Your task to perform on an android device: visit the assistant section in the google photos Image 0: 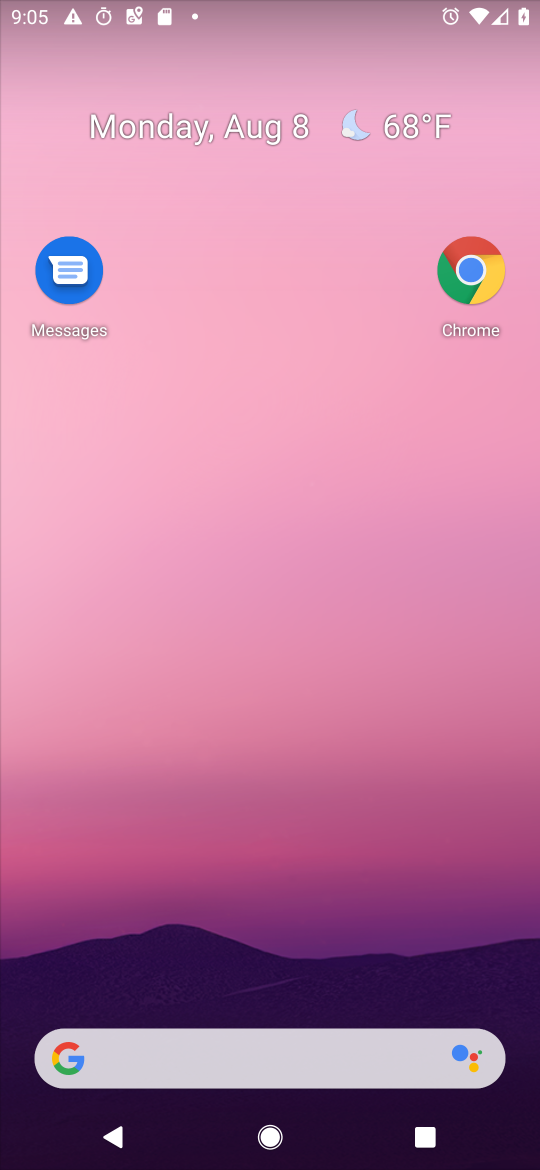
Step 0: drag from (220, 957) to (256, 47)
Your task to perform on an android device: visit the assistant section in the google photos Image 1: 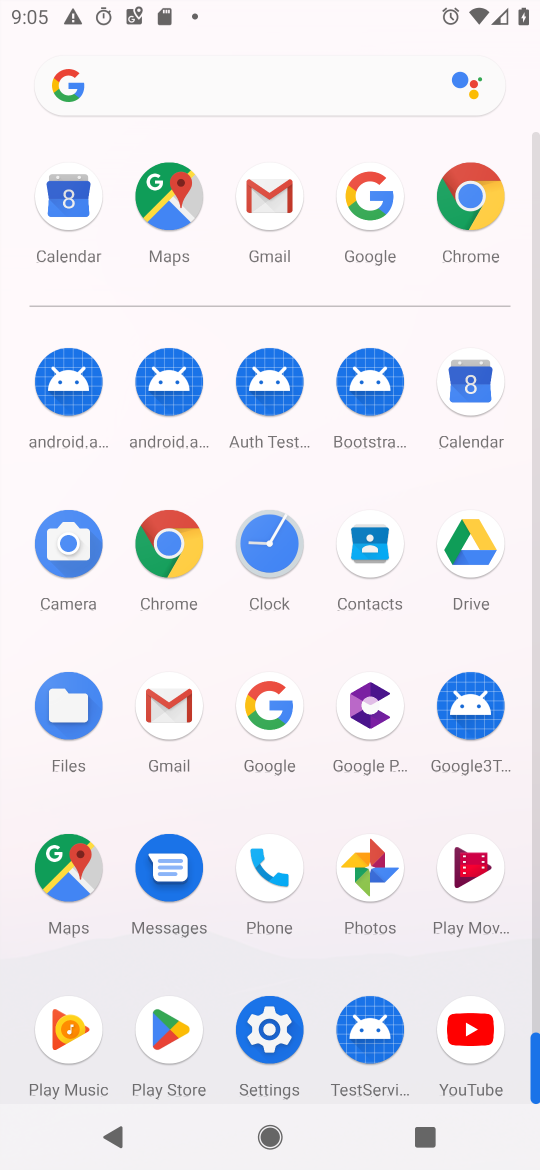
Step 1: click (374, 865)
Your task to perform on an android device: visit the assistant section in the google photos Image 2: 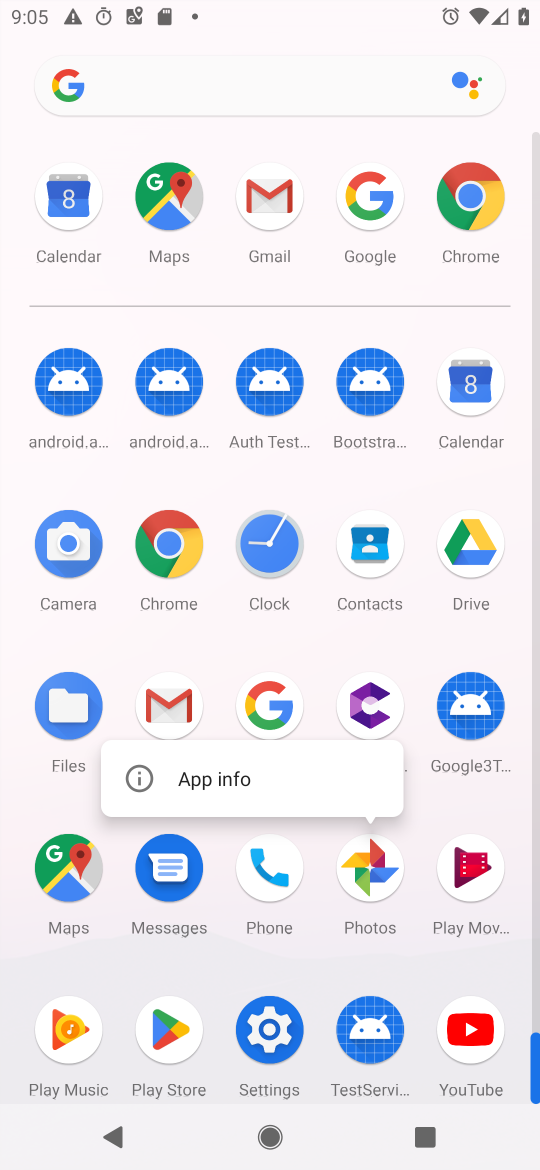
Step 2: click (199, 764)
Your task to perform on an android device: visit the assistant section in the google photos Image 3: 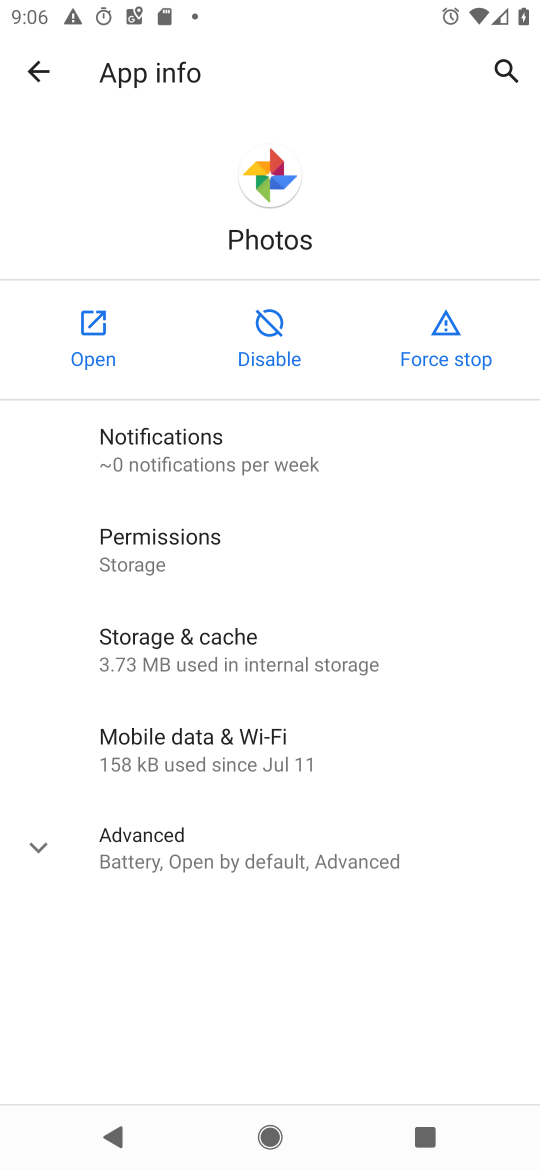
Step 3: click (88, 312)
Your task to perform on an android device: visit the assistant section in the google photos Image 4: 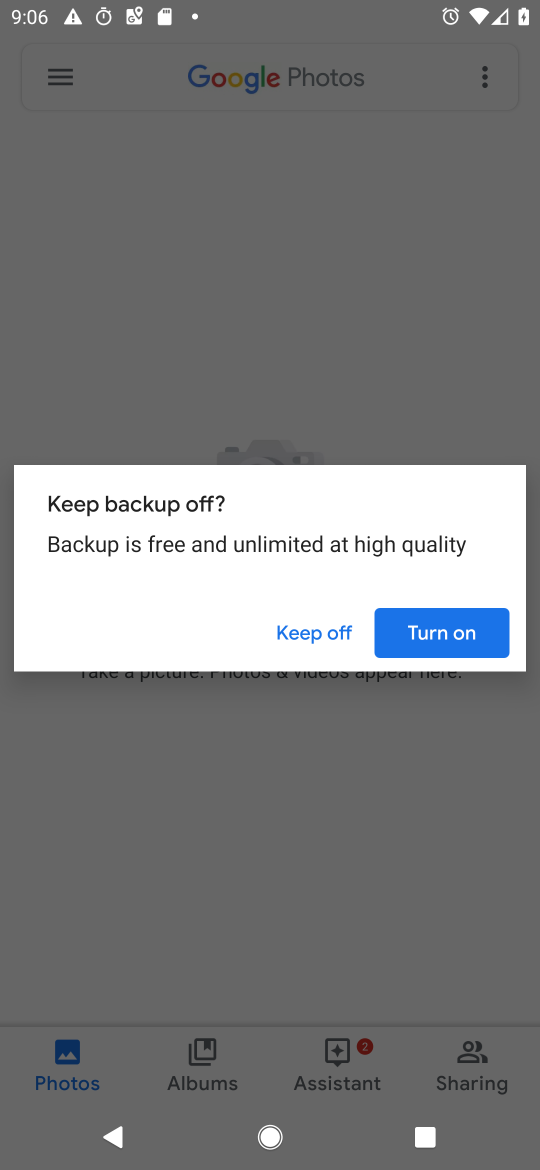
Step 4: click (423, 628)
Your task to perform on an android device: visit the assistant section in the google photos Image 5: 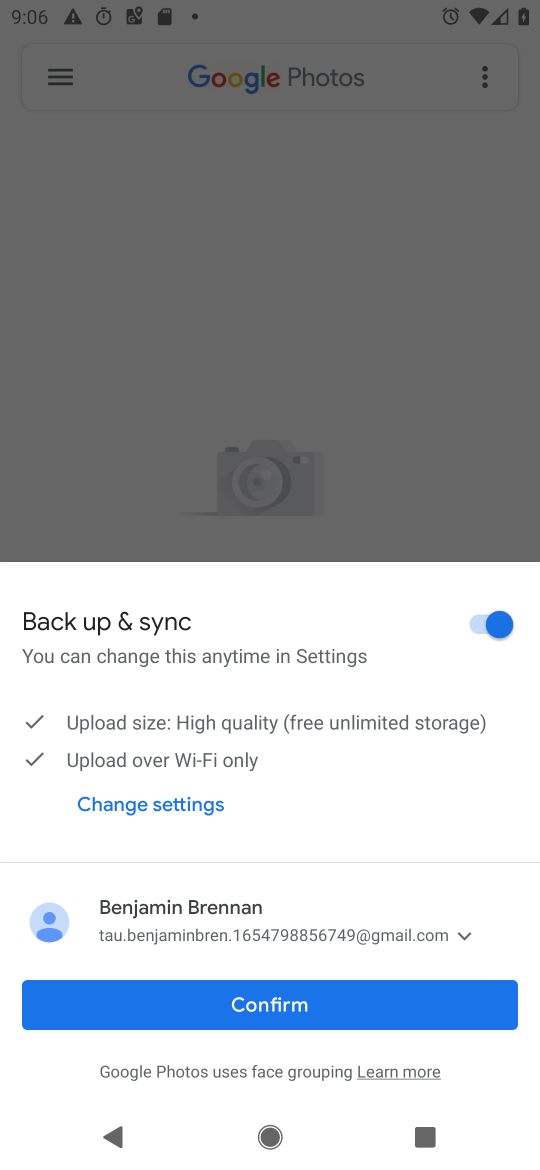
Step 5: click (204, 1005)
Your task to perform on an android device: visit the assistant section in the google photos Image 6: 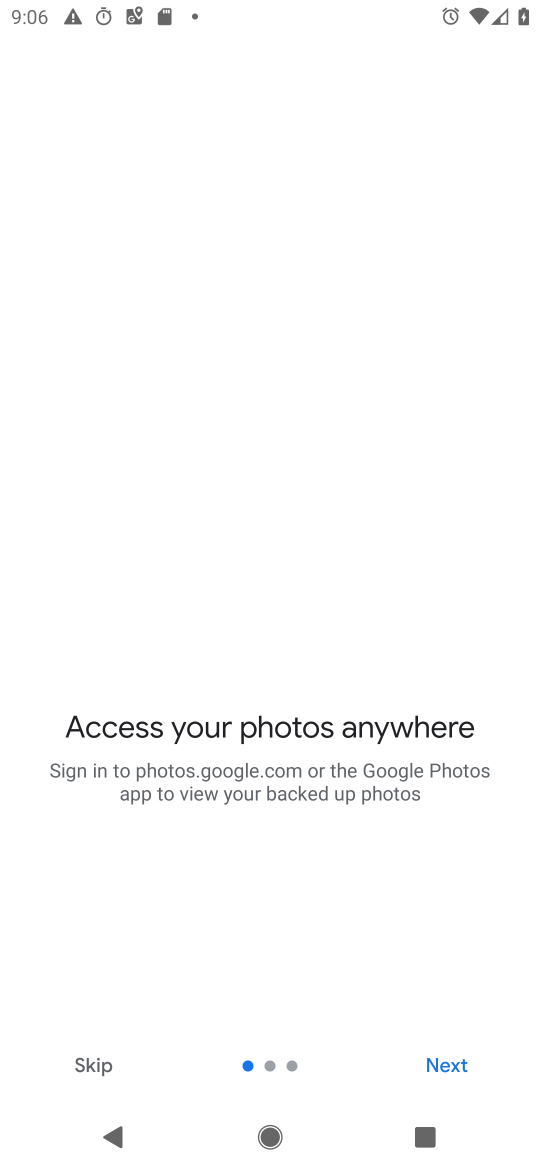
Step 6: click (103, 1063)
Your task to perform on an android device: visit the assistant section in the google photos Image 7: 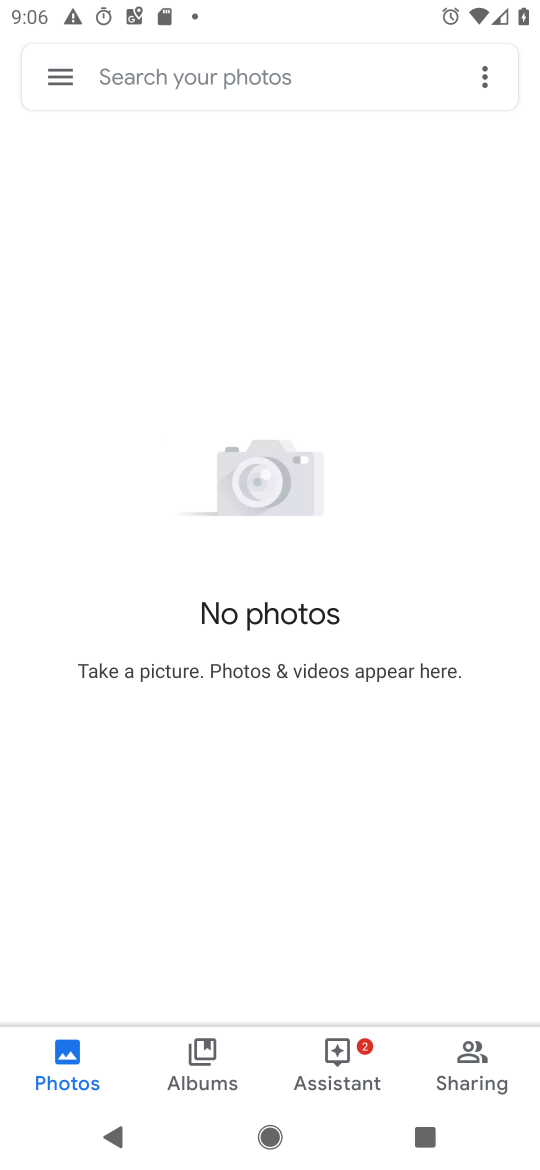
Step 7: click (317, 1035)
Your task to perform on an android device: visit the assistant section in the google photos Image 8: 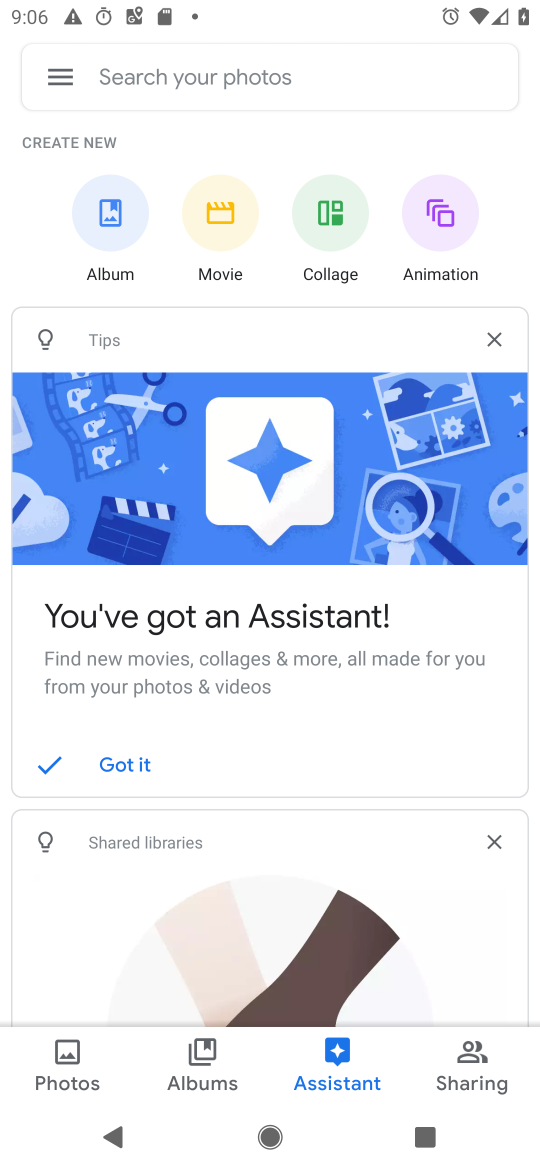
Step 8: task complete